Your task to perform on an android device: allow cookies in the chrome app Image 0: 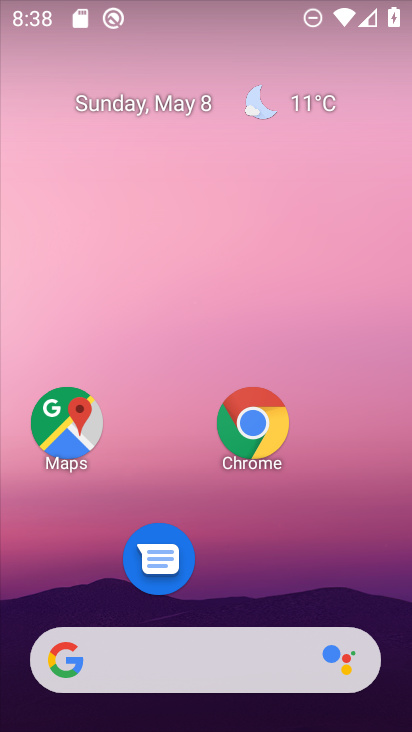
Step 0: click (247, 431)
Your task to perform on an android device: allow cookies in the chrome app Image 1: 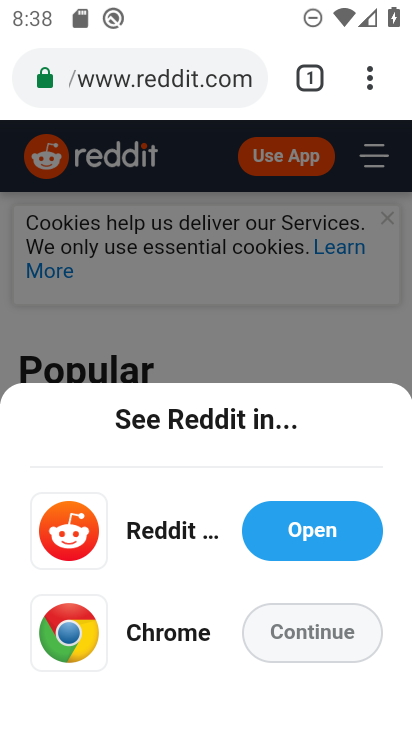
Step 1: drag from (374, 75) to (110, 605)
Your task to perform on an android device: allow cookies in the chrome app Image 2: 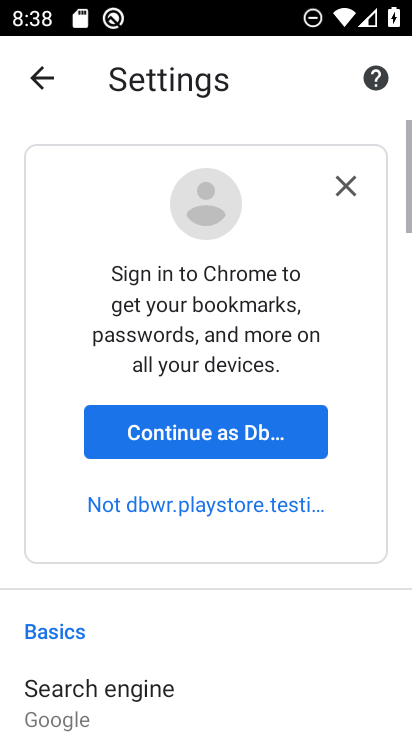
Step 2: drag from (125, 647) to (153, 7)
Your task to perform on an android device: allow cookies in the chrome app Image 3: 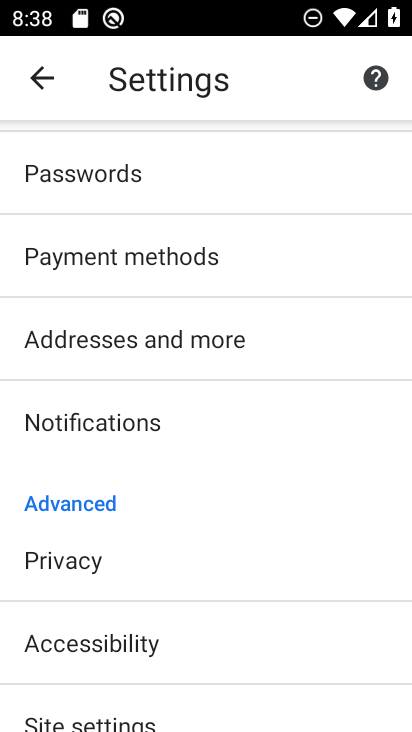
Step 3: drag from (242, 622) to (245, 153)
Your task to perform on an android device: allow cookies in the chrome app Image 4: 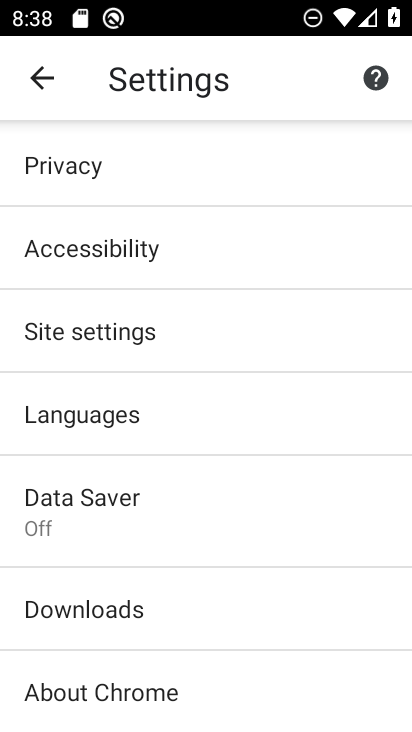
Step 4: click (74, 339)
Your task to perform on an android device: allow cookies in the chrome app Image 5: 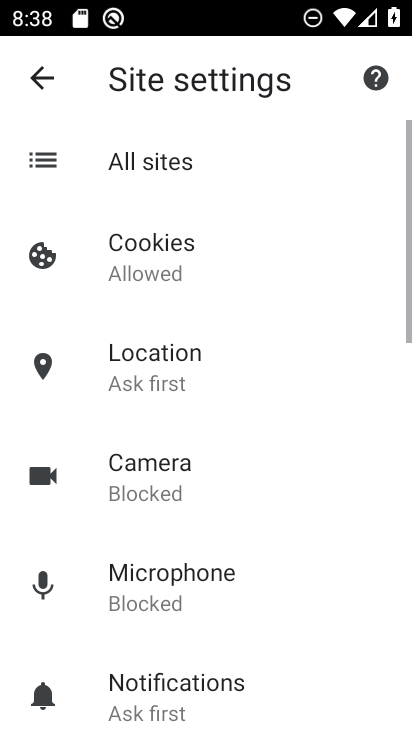
Step 5: click (127, 268)
Your task to perform on an android device: allow cookies in the chrome app Image 6: 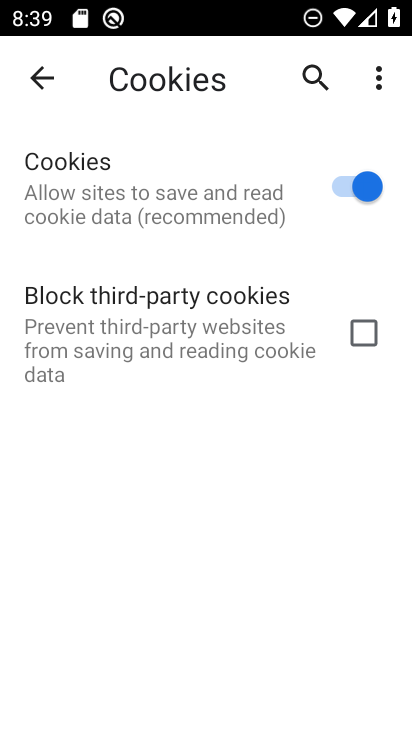
Step 6: task complete